Your task to perform on an android device: turn on sleep mode Image 0: 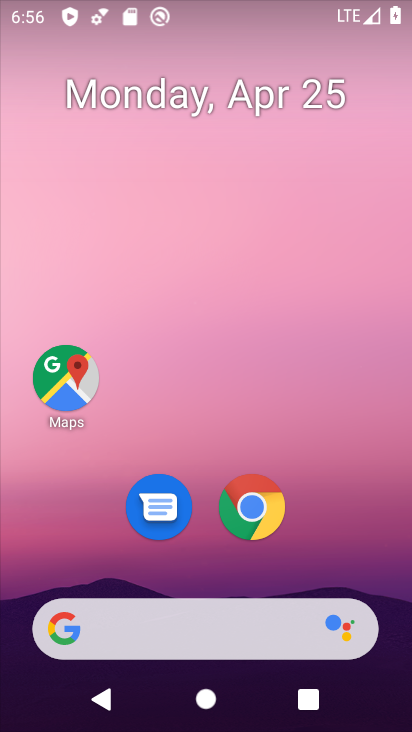
Step 0: drag from (346, 324) to (351, 70)
Your task to perform on an android device: turn on sleep mode Image 1: 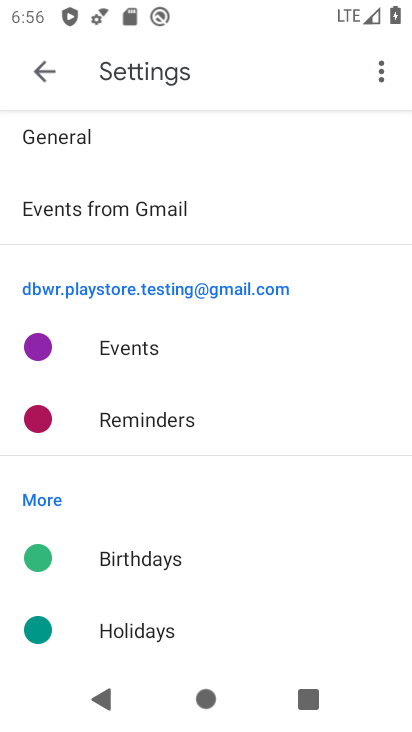
Step 1: press home button
Your task to perform on an android device: turn on sleep mode Image 2: 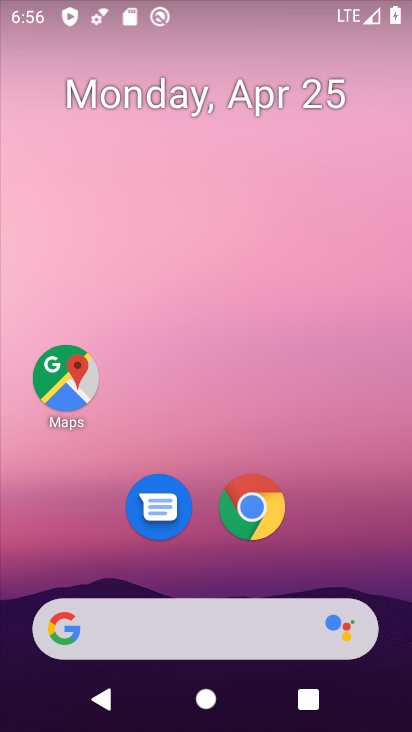
Step 2: drag from (392, 581) to (350, 213)
Your task to perform on an android device: turn on sleep mode Image 3: 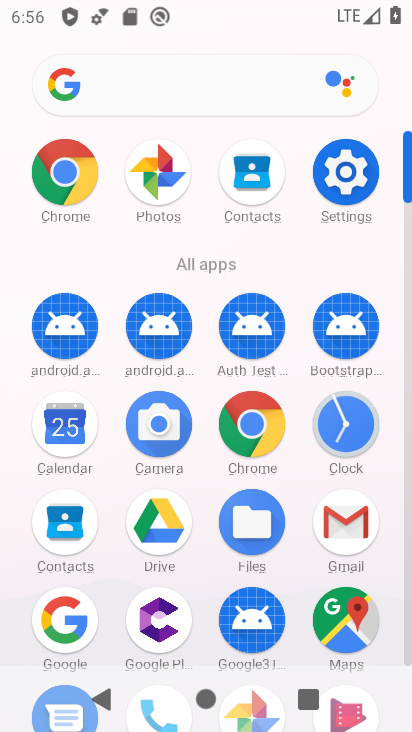
Step 3: click (346, 167)
Your task to perform on an android device: turn on sleep mode Image 4: 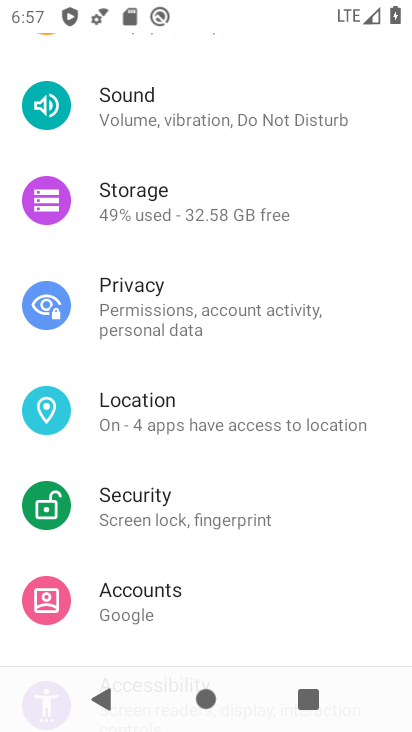
Step 4: drag from (281, 169) to (308, 679)
Your task to perform on an android device: turn on sleep mode Image 5: 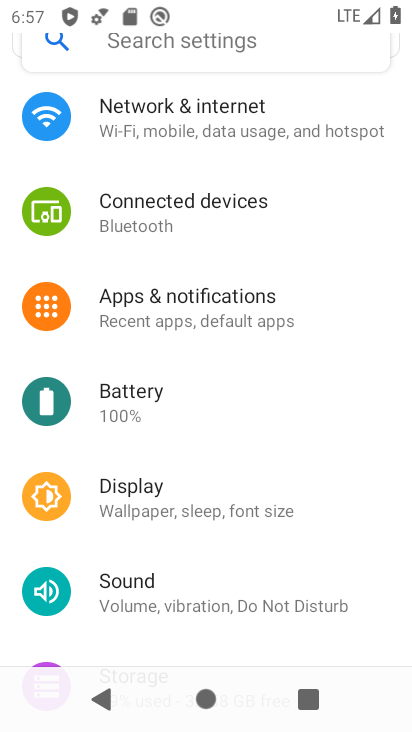
Step 5: click (183, 494)
Your task to perform on an android device: turn on sleep mode Image 6: 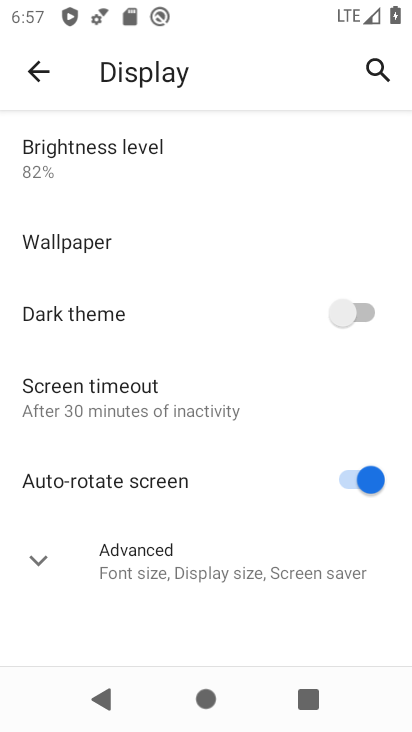
Step 6: task complete